Your task to perform on an android device: Open the Play Movies app and select the watchlist tab. Image 0: 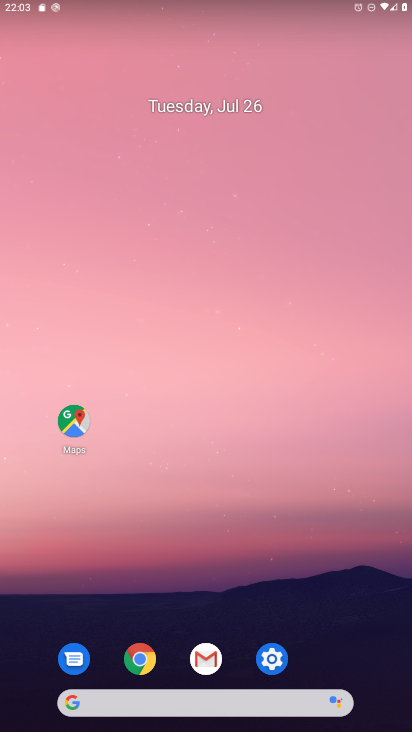
Step 0: drag from (242, 712) to (410, 216)
Your task to perform on an android device: Open the Play Movies app and select the watchlist tab. Image 1: 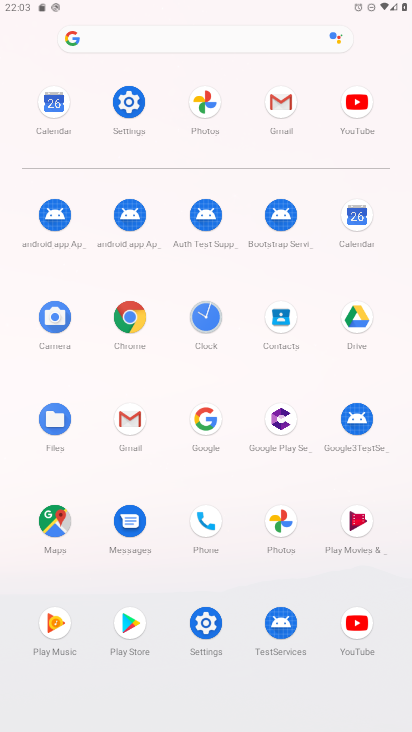
Step 1: click (349, 523)
Your task to perform on an android device: Open the Play Movies app and select the watchlist tab. Image 2: 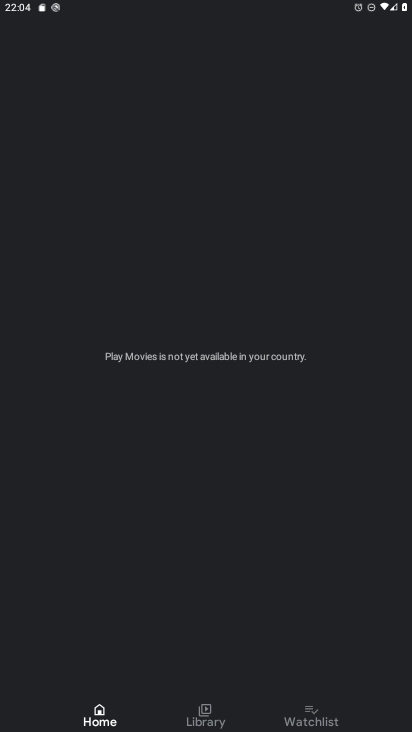
Step 2: click (315, 722)
Your task to perform on an android device: Open the Play Movies app and select the watchlist tab. Image 3: 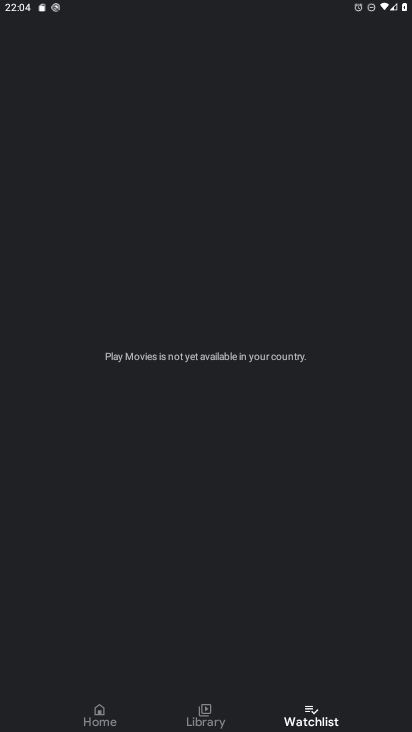
Step 3: task complete